Your task to perform on an android device: Open calendar and show me the third week of next month Image 0: 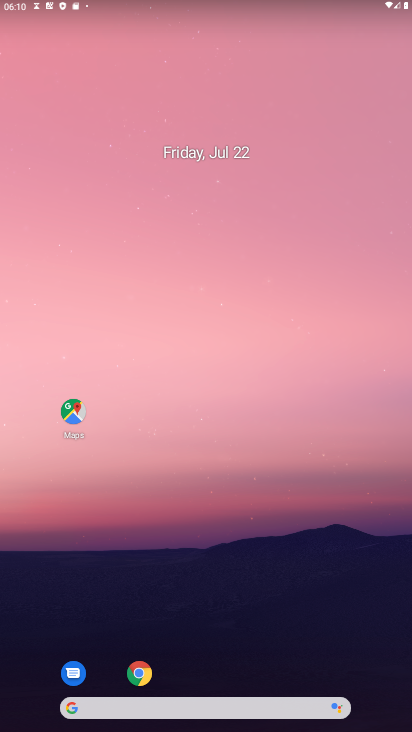
Step 0: drag from (177, 641) to (210, 206)
Your task to perform on an android device: Open calendar and show me the third week of next month Image 1: 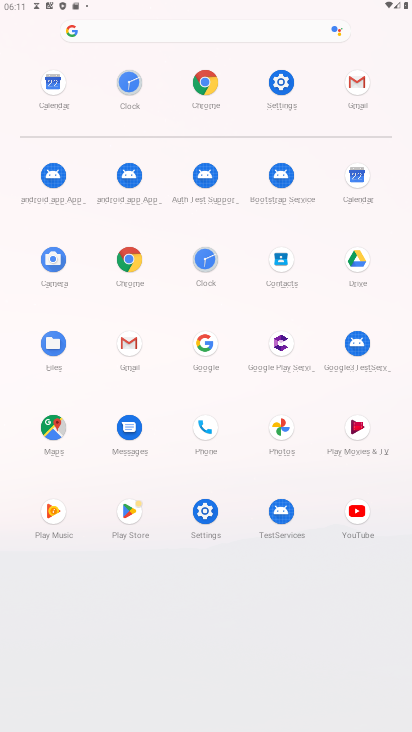
Step 1: click (356, 182)
Your task to perform on an android device: Open calendar and show me the third week of next month Image 2: 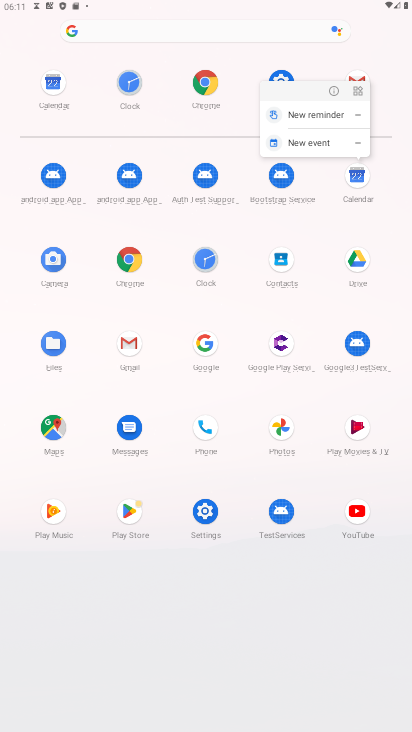
Step 2: click (356, 182)
Your task to perform on an android device: Open calendar and show me the third week of next month Image 3: 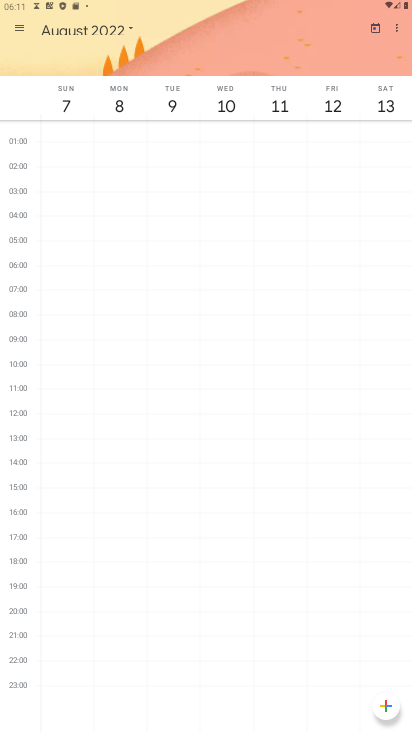
Step 3: click (27, 24)
Your task to perform on an android device: Open calendar and show me the third week of next month Image 4: 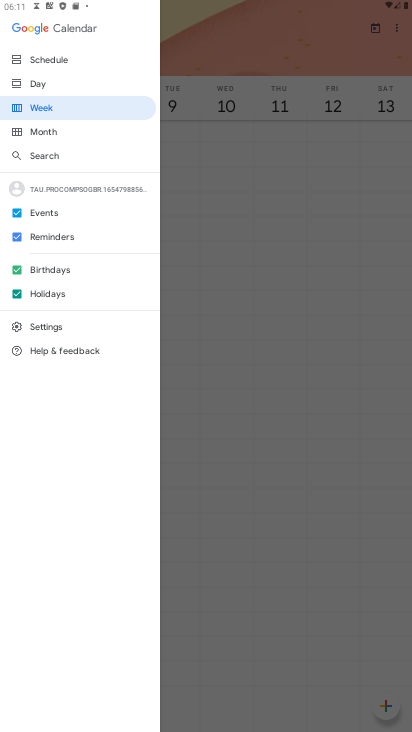
Step 4: click (34, 102)
Your task to perform on an android device: Open calendar and show me the third week of next month Image 5: 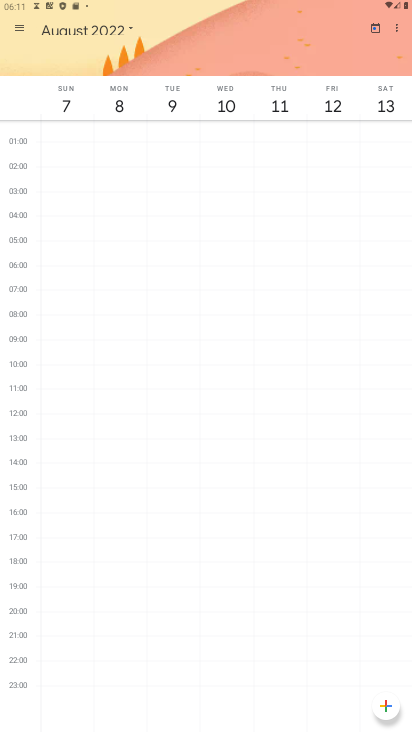
Step 5: task complete